Your task to perform on an android device: change the clock display to analog Image 0: 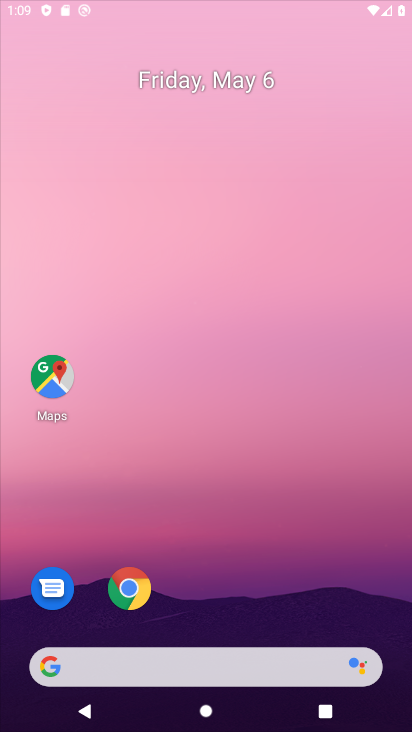
Step 0: drag from (338, 602) to (289, 148)
Your task to perform on an android device: change the clock display to analog Image 1: 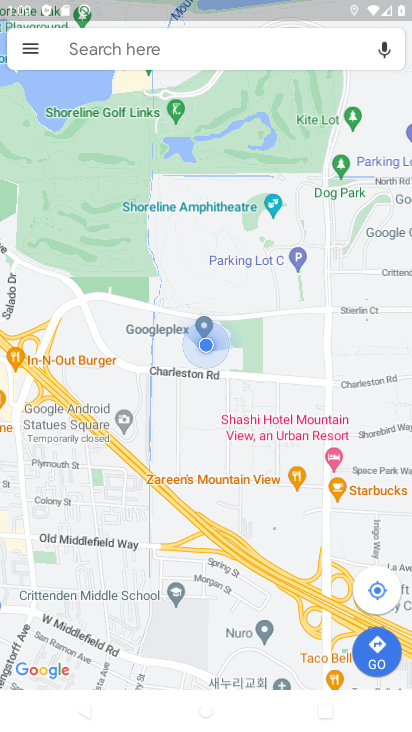
Step 1: press home button
Your task to perform on an android device: change the clock display to analog Image 2: 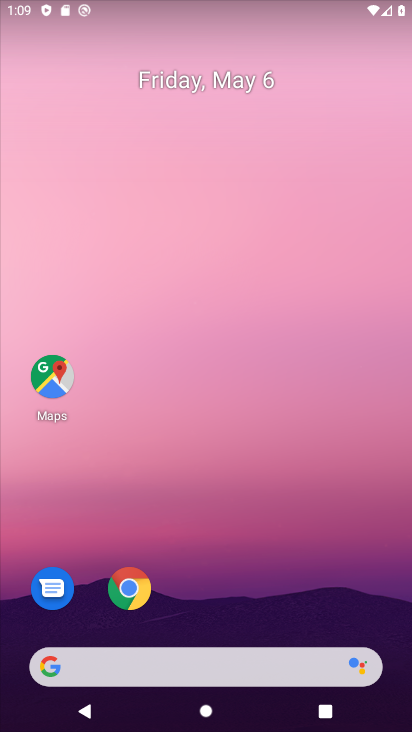
Step 2: drag from (389, 596) to (319, 89)
Your task to perform on an android device: change the clock display to analog Image 3: 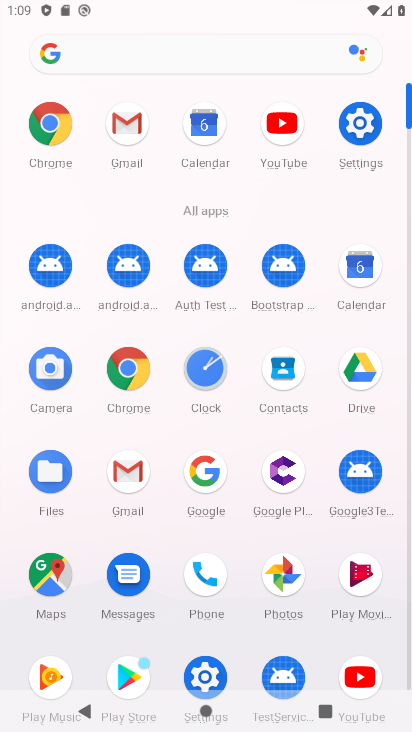
Step 3: click (198, 371)
Your task to perform on an android device: change the clock display to analog Image 4: 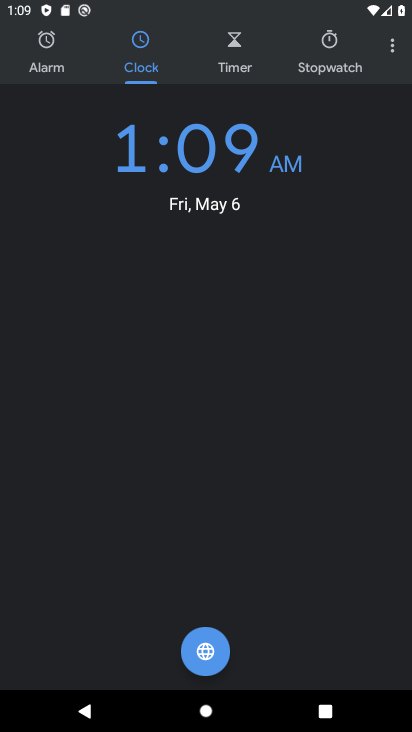
Step 4: click (395, 46)
Your task to perform on an android device: change the clock display to analog Image 5: 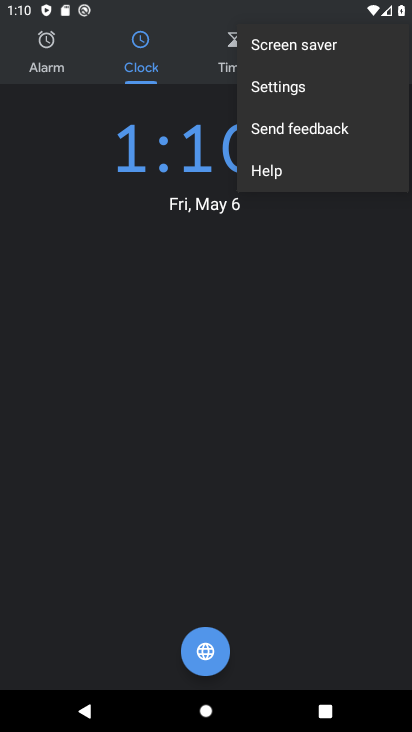
Step 5: click (298, 87)
Your task to perform on an android device: change the clock display to analog Image 6: 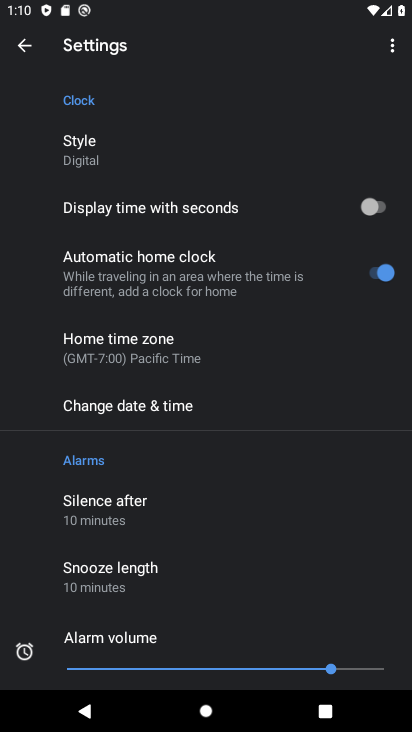
Step 6: click (113, 146)
Your task to perform on an android device: change the clock display to analog Image 7: 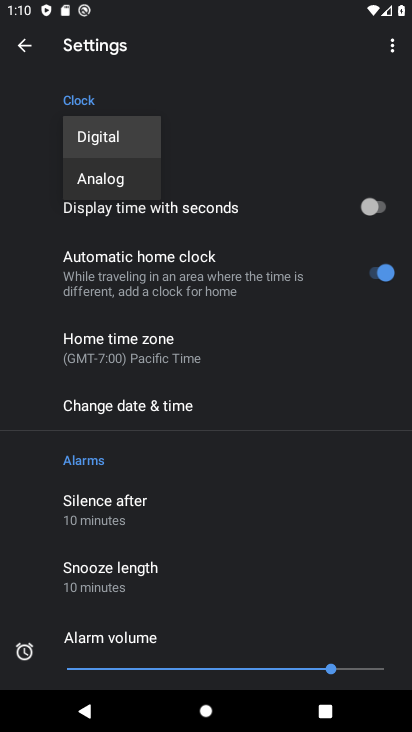
Step 7: click (123, 180)
Your task to perform on an android device: change the clock display to analog Image 8: 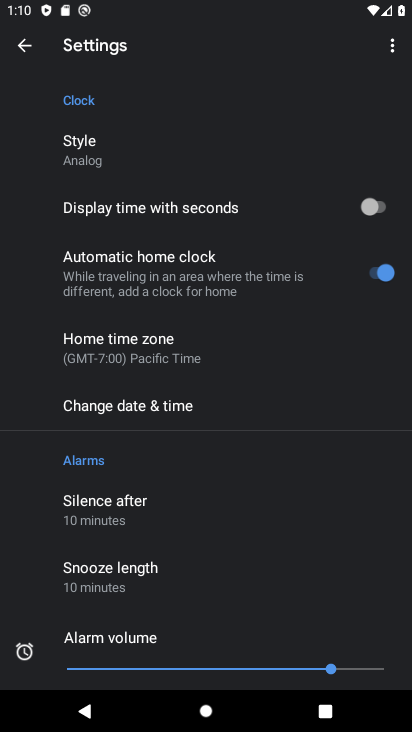
Step 8: task complete